Your task to perform on an android device: turn on data saver in the chrome app Image 0: 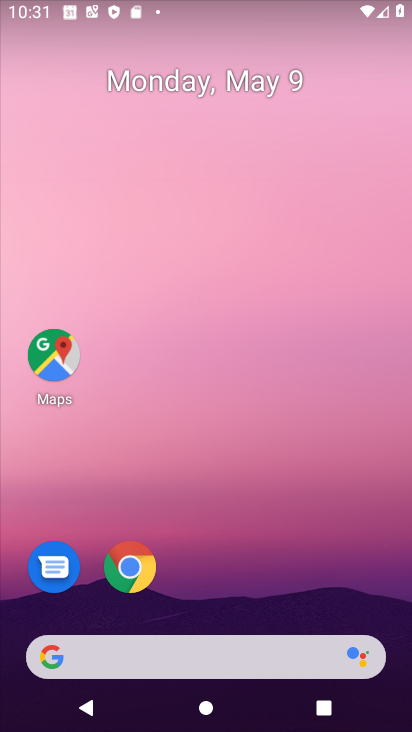
Step 0: click (117, 562)
Your task to perform on an android device: turn on data saver in the chrome app Image 1: 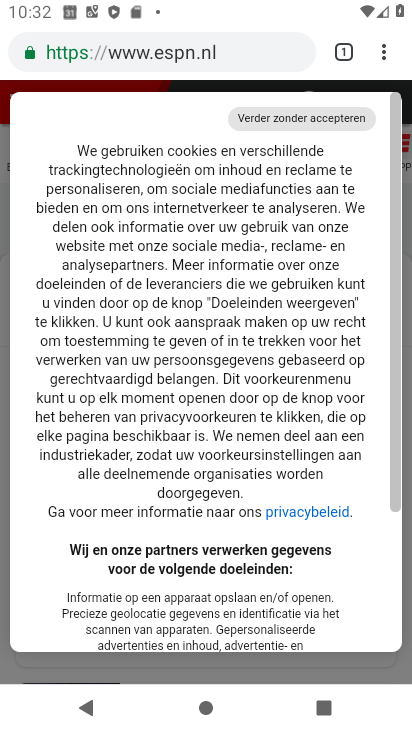
Step 1: drag from (382, 53) to (278, 604)
Your task to perform on an android device: turn on data saver in the chrome app Image 2: 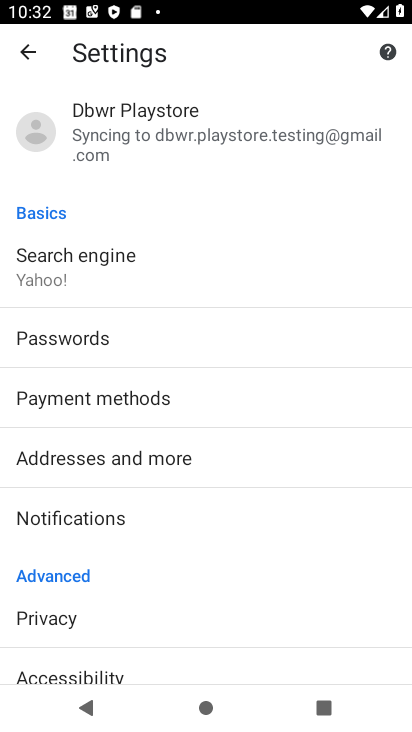
Step 2: drag from (85, 627) to (52, 221)
Your task to perform on an android device: turn on data saver in the chrome app Image 3: 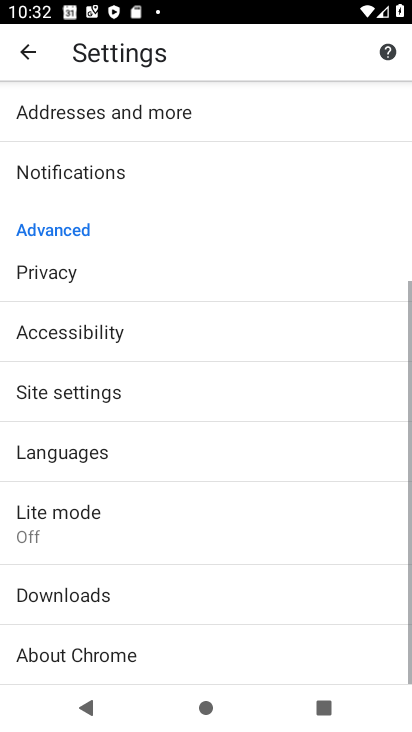
Step 3: click (95, 523)
Your task to perform on an android device: turn on data saver in the chrome app Image 4: 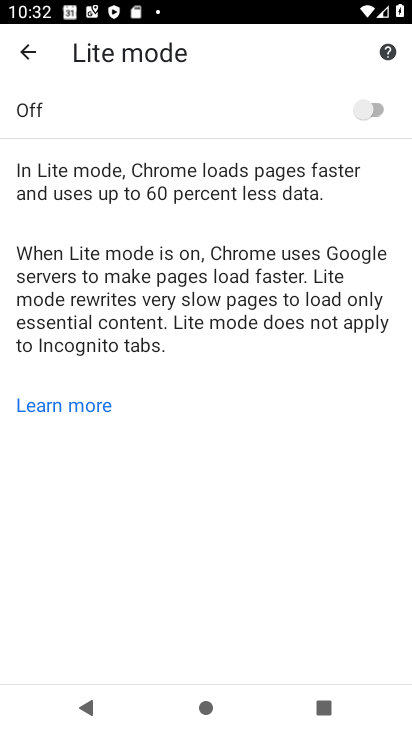
Step 4: click (368, 117)
Your task to perform on an android device: turn on data saver in the chrome app Image 5: 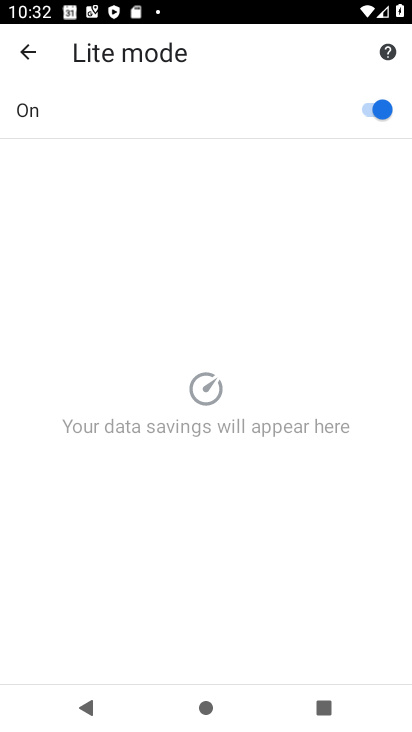
Step 5: task complete